Your task to perform on an android device: Open Youtube and go to the subscriptions tab Image 0: 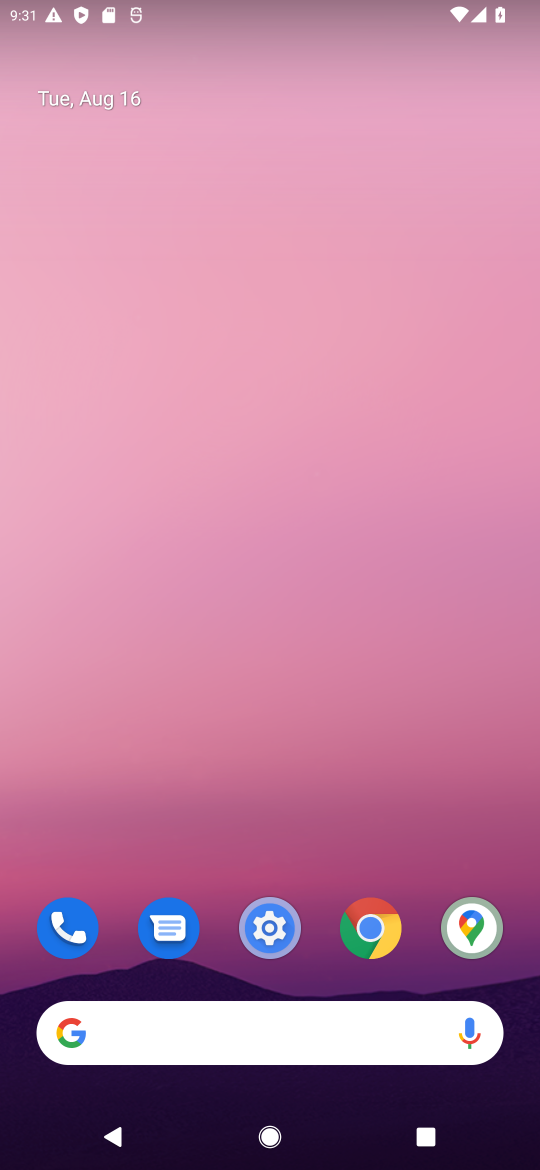
Step 0: press home button
Your task to perform on an android device: Open Youtube and go to the subscriptions tab Image 1: 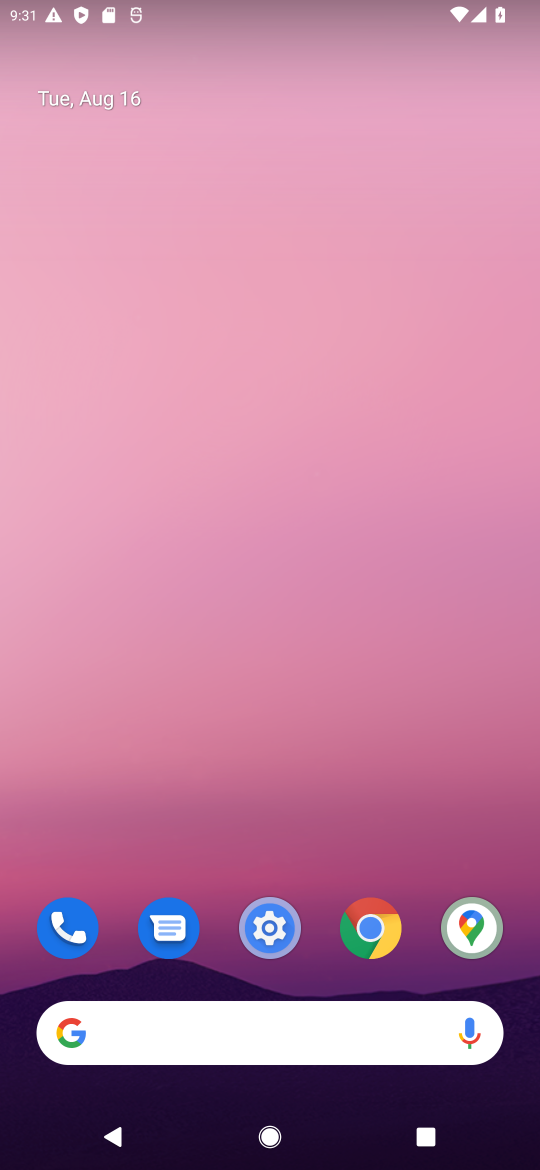
Step 1: drag from (387, 793) to (459, 10)
Your task to perform on an android device: Open Youtube and go to the subscriptions tab Image 2: 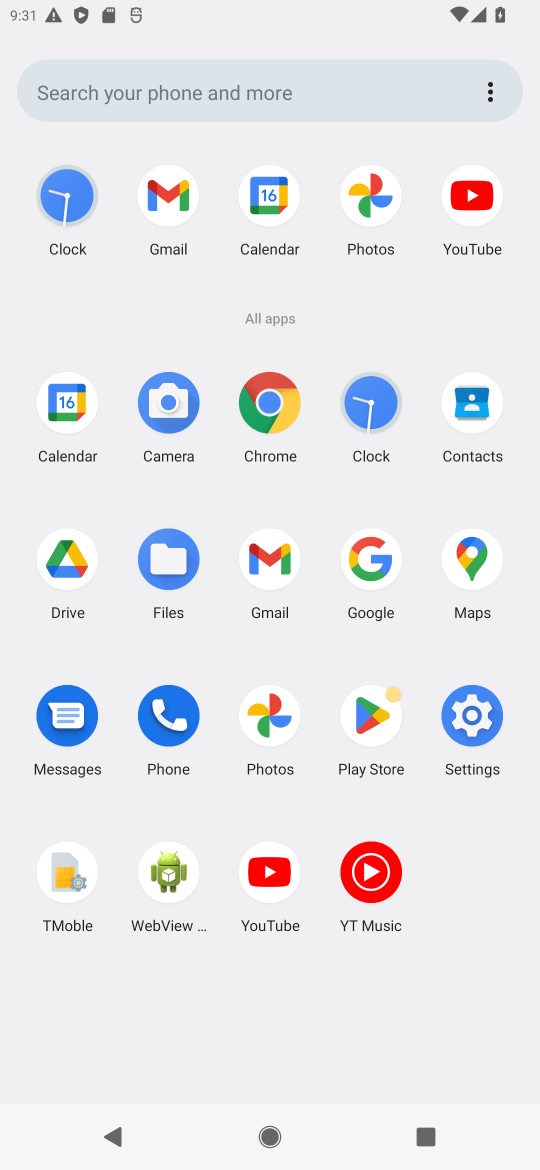
Step 2: click (471, 198)
Your task to perform on an android device: Open Youtube and go to the subscriptions tab Image 3: 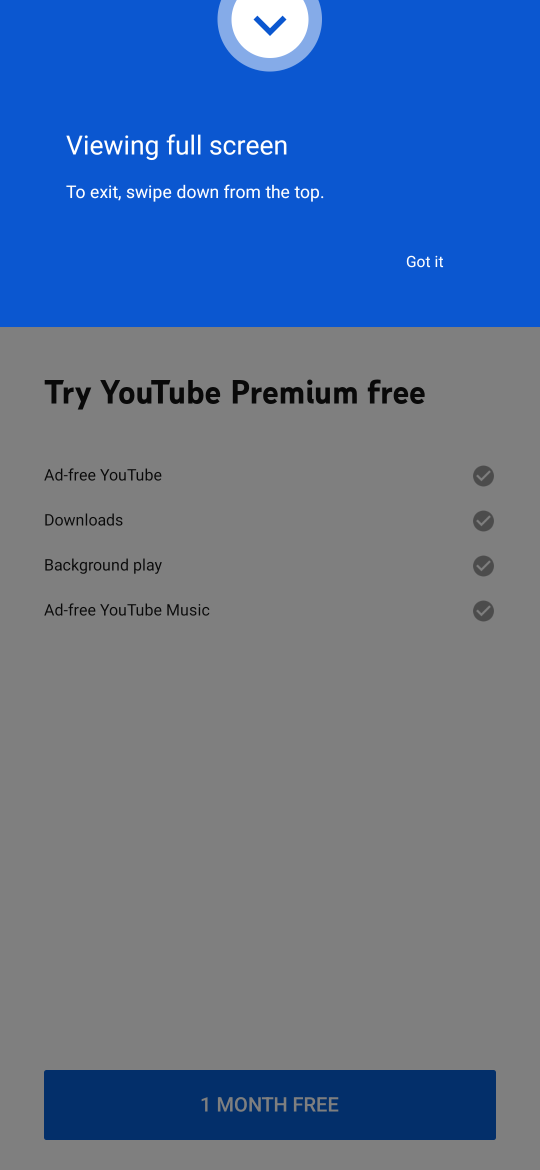
Step 3: click (434, 258)
Your task to perform on an android device: Open Youtube and go to the subscriptions tab Image 4: 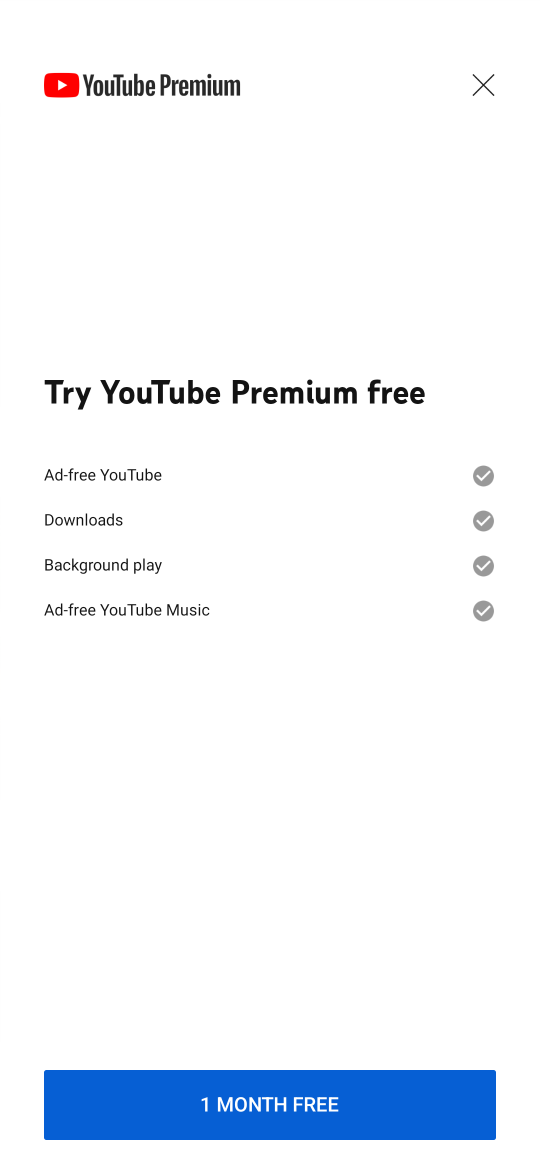
Step 4: click (481, 82)
Your task to perform on an android device: Open Youtube and go to the subscriptions tab Image 5: 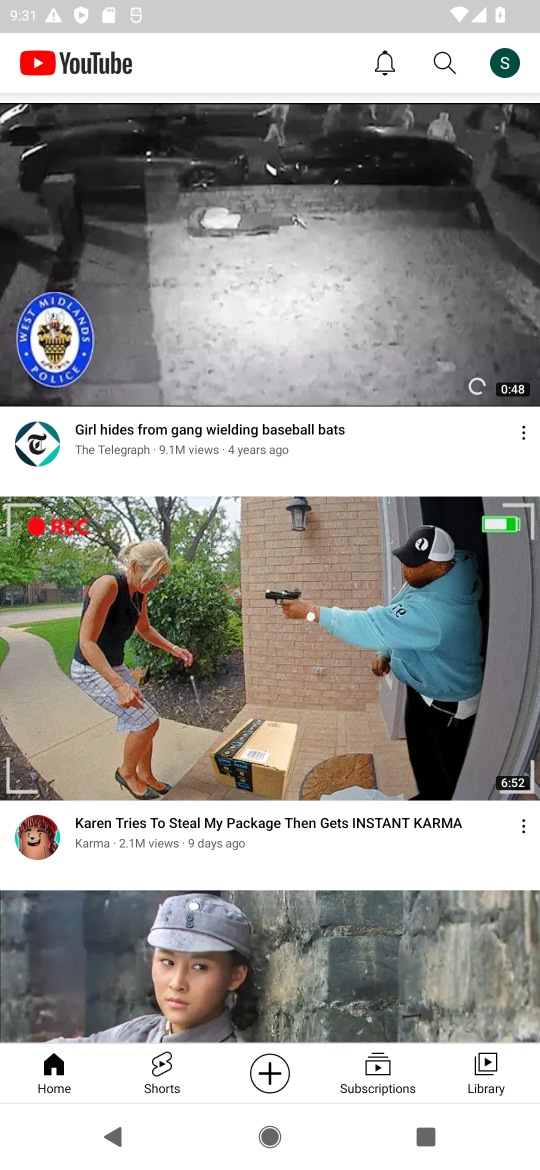
Step 5: click (380, 1081)
Your task to perform on an android device: Open Youtube and go to the subscriptions tab Image 6: 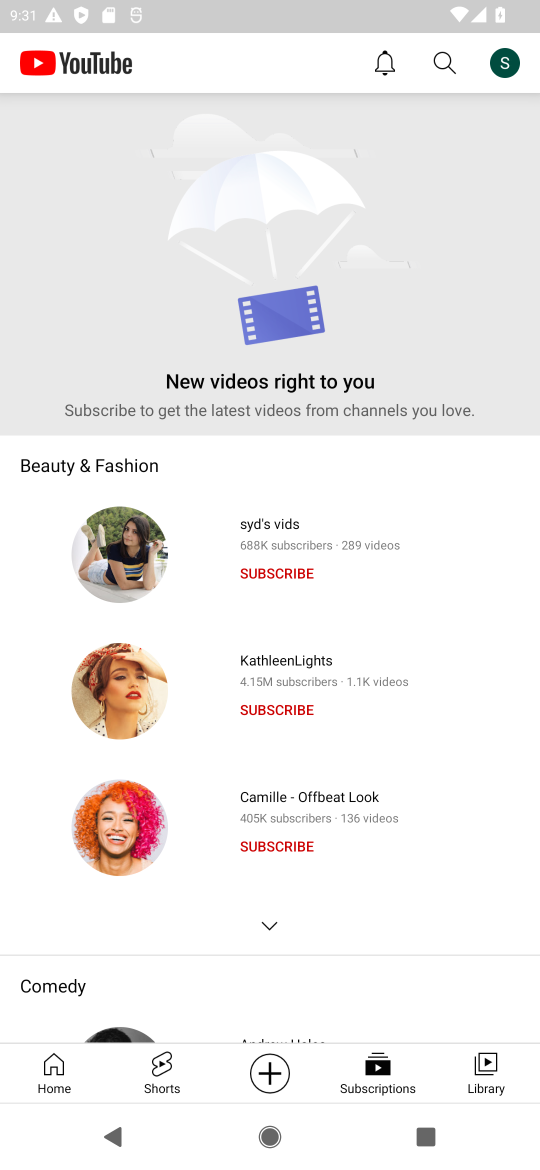
Step 6: task complete